Your task to perform on an android device: Open the map Image 0: 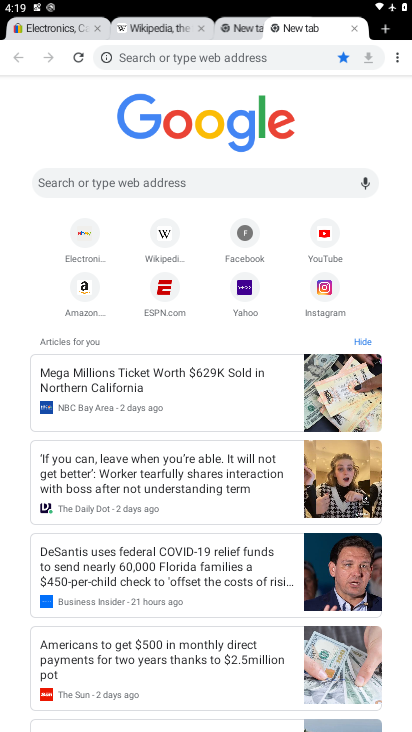
Step 0: press home button
Your task to perform on an android device: Open the map Image 1: 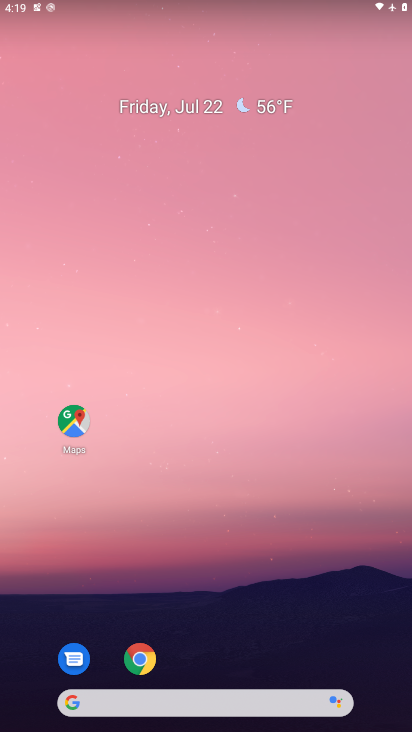
Step 1: click (68, 429)
Your task to perform on an android device: Open the map Image 2: 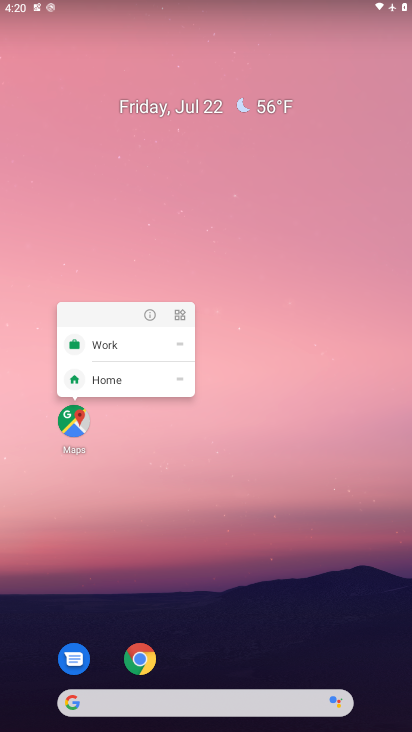
Step 2: click (69, 422)
Your task to perform on an android device: Open the map Image 3: 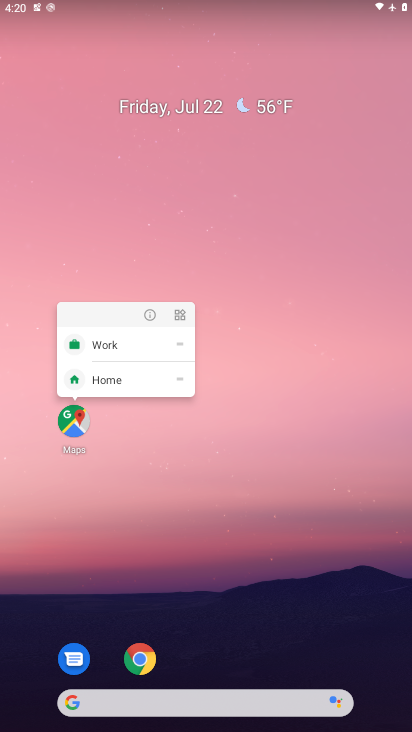
Step 3: click (69, 422)
Your task to perform on an android device: Open the map Image 4: 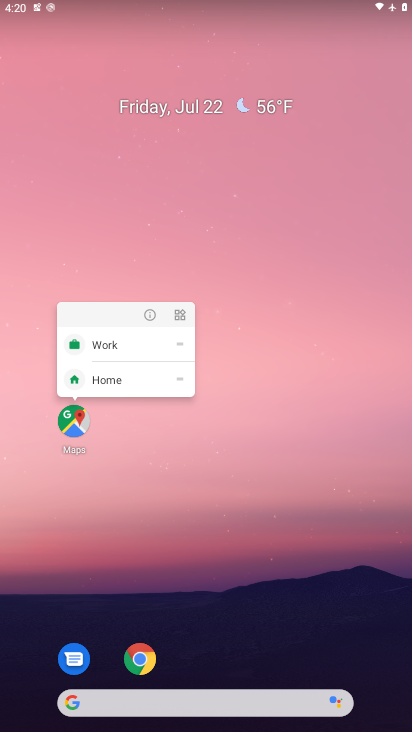
Step 4: click (74, 419)
Your task to perform on an android device: Open the map Image 5: 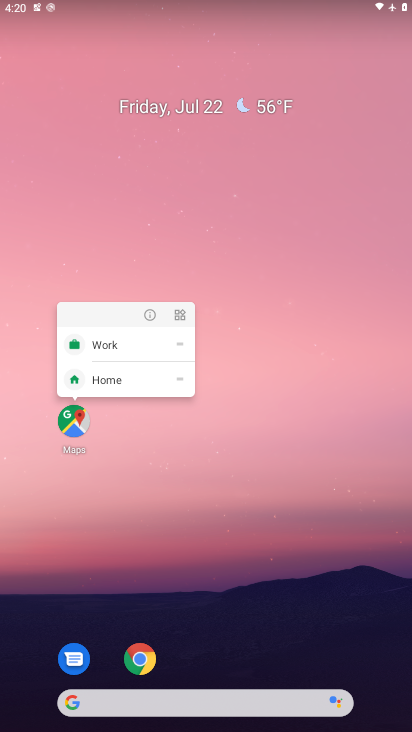
Step 5: click (79, 422)
Your task to perform on an android device: Open the map Image 6: 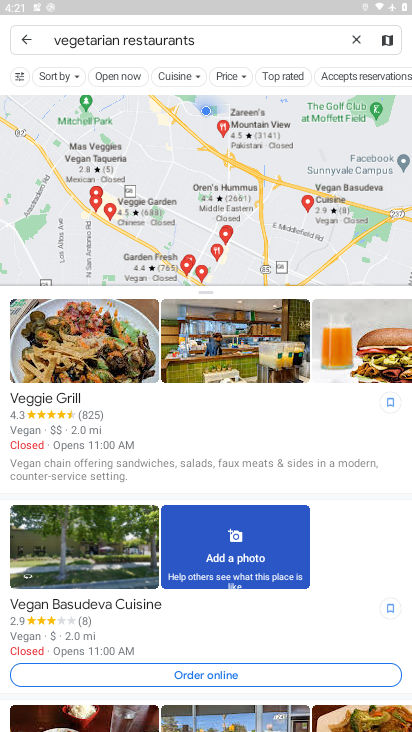
Step 6: click (352, 43)
Your task to perform on an android device: Open the map Image 7: 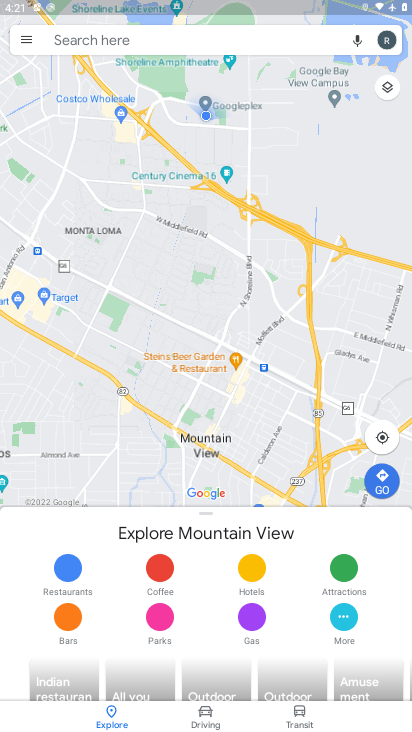
Step 7: task complete